Your task to perform on an android device: set the stopwatch Image 0: 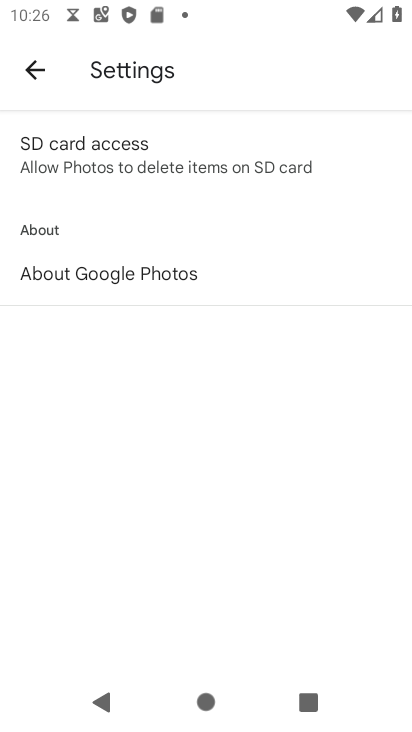
Step 0: press home button
Your task to perform on an android device: set the stopwatch Image 1: 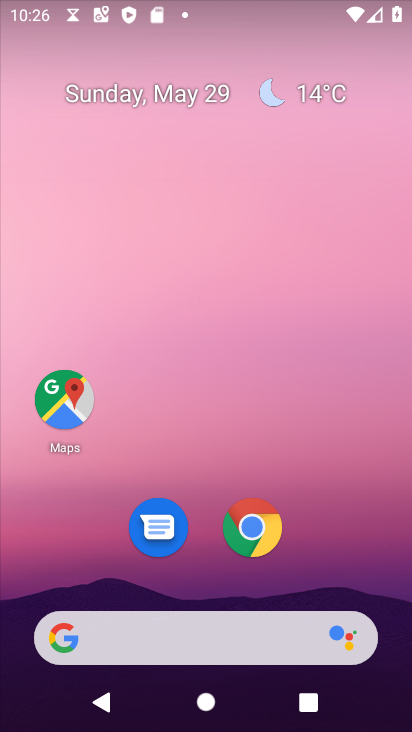
Step 1: drag from (150, 624) to (237, 48)
Your task to perform on an android device: set the stopwatch Image 2: 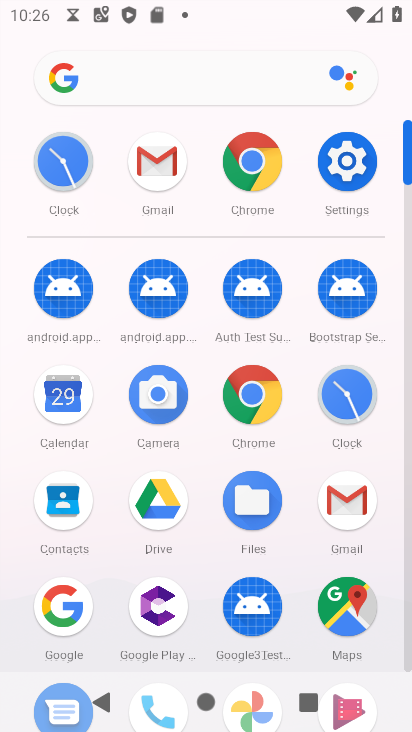
Step 2: click (63, 177)
Your task to perform on an android device: set the stopwatch Image 3: 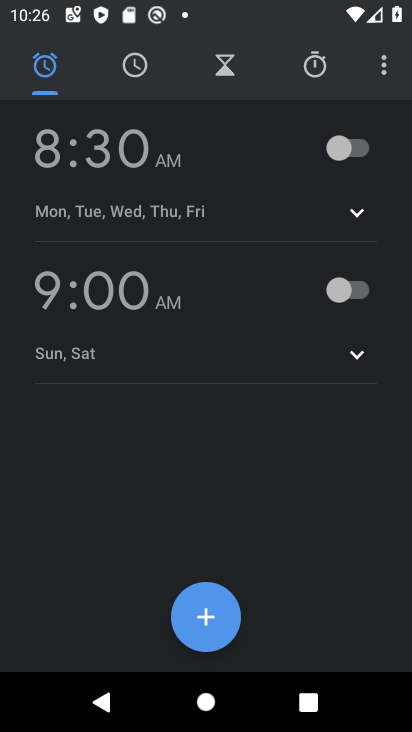
Step 3: click (318, 67)
Your task to perform on an android device: set the stopwatch Image 4: 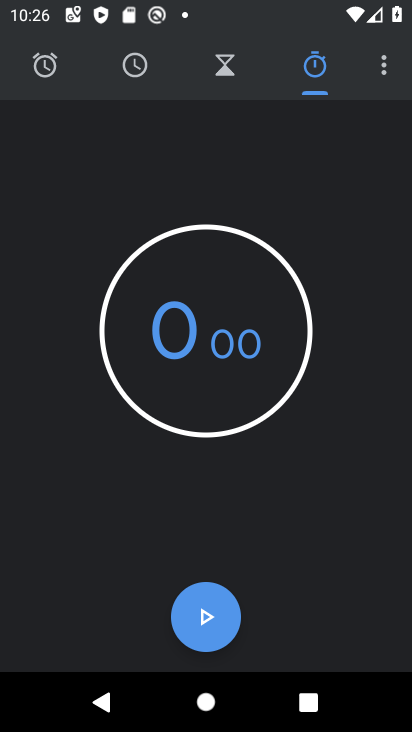
Step 4: click (197, 352)
Your task to perform on an android device: set the stopwatch Image 5: 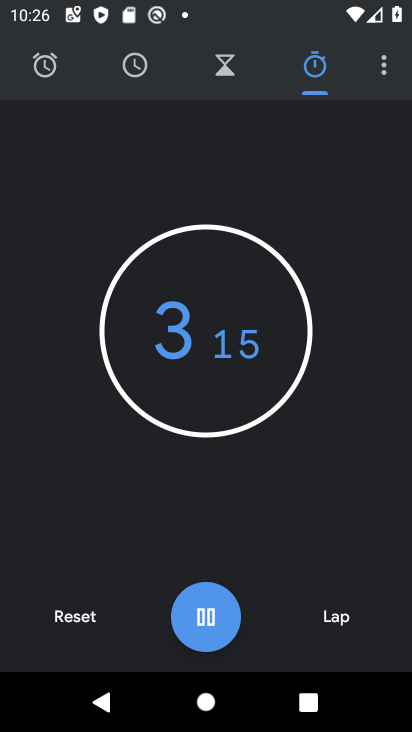
Step 5: click (210, 322)
Your task to perform on an android device: set the stopwatch Image 6: 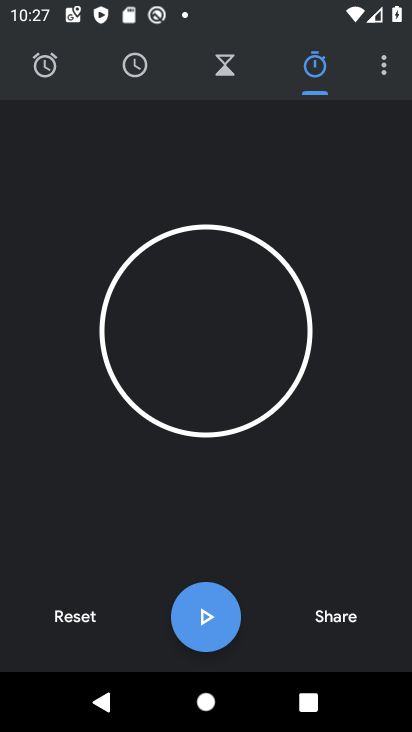
Step 6: task complete